Your task to perform on an android device: What is the recent news? Image 0: 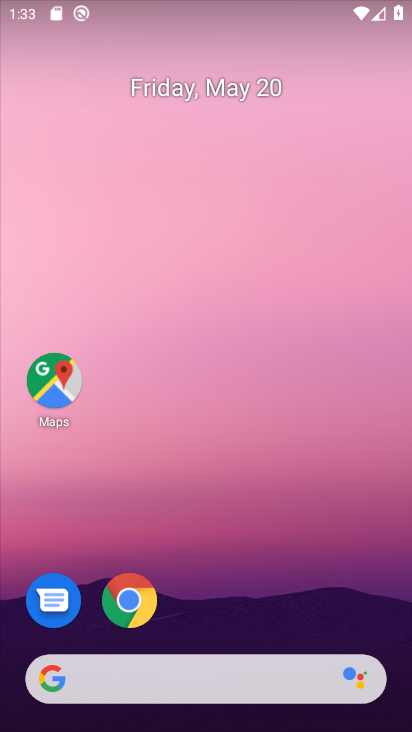
Step 0: click (181, 690)
Your task to perform on an android device: What is the recent news? Image 1: 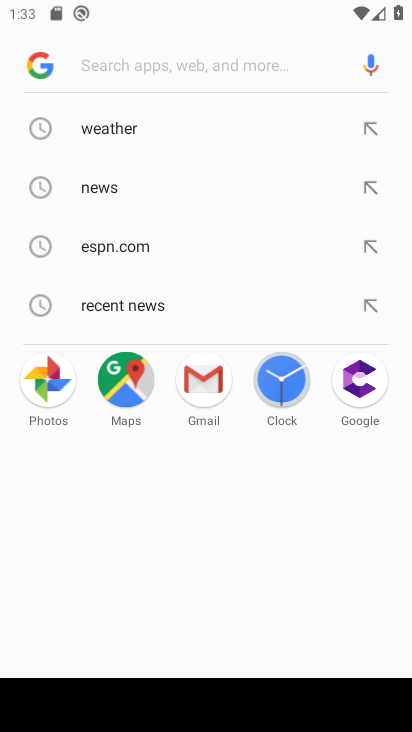
Step 1: type "recent news"
Your task to perform on an android device: What is the recent news? Image 2: 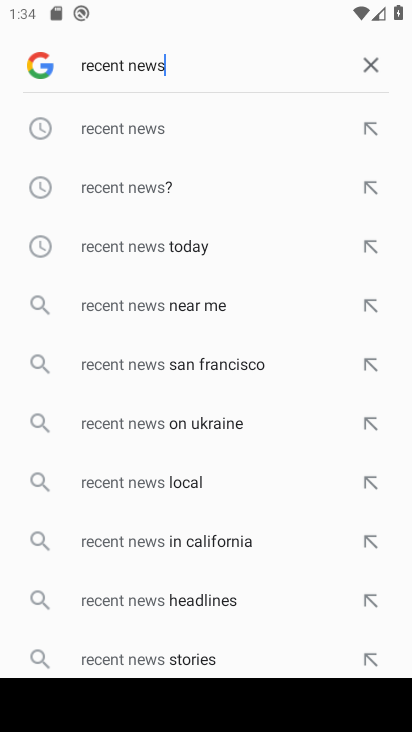
Step 2: click (174, 132)
Your task to perform on an android device: What is the recent news? Image 3: 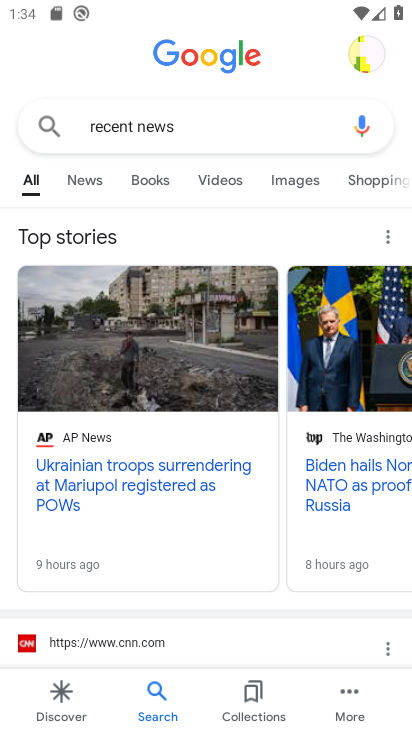
Step 3: task complete